Your task to perform on an android device: change the clock display to analog Image 0: 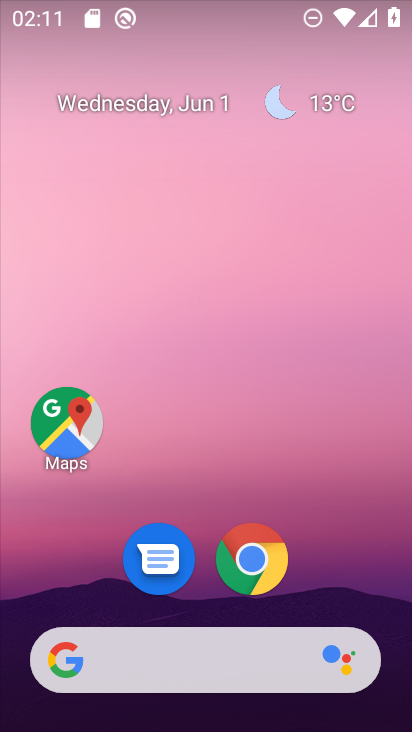
Step 0: drag from (386, 709) to (308, 7)
Your task to perform on an android device: change the clock display to analog Image 1: 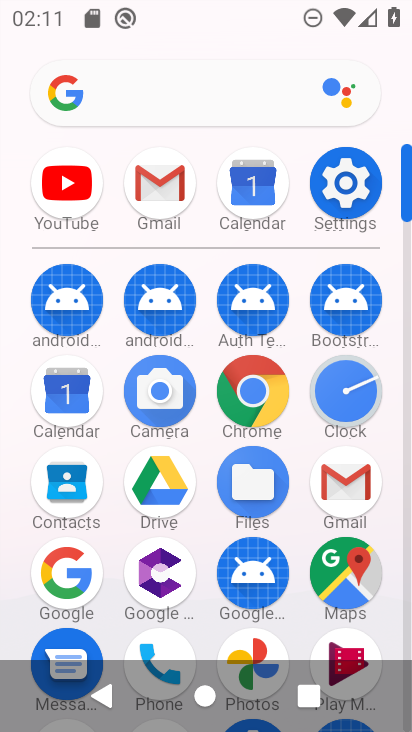
Step 1: click (341, 385)
Your task to perform on an android device: change the clock display to analog Image 2: 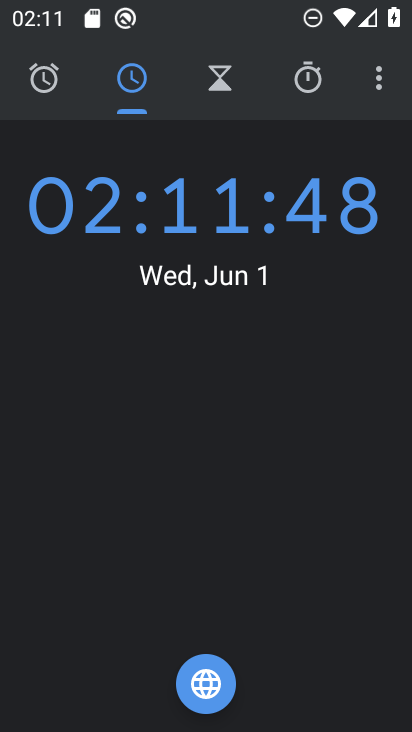
Step 2: click (377, 78)
Your task to perform on an android device: change the clock display to analog Image 3: 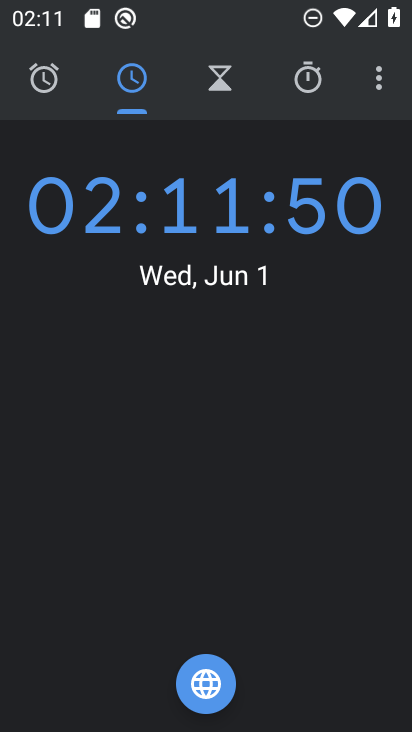
Step 3: click (386, 74)
Your task to perform on an android device: change the clock display to analog Image 4: 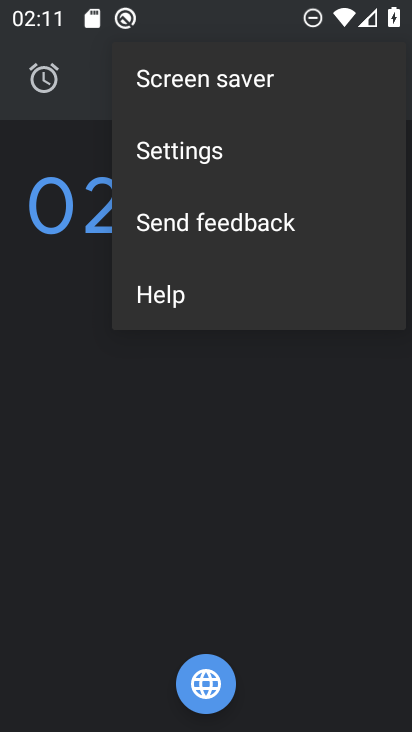
Step 4: click (190, 141)
Your task to perform on an android device: change the clock display to analog Image 5: 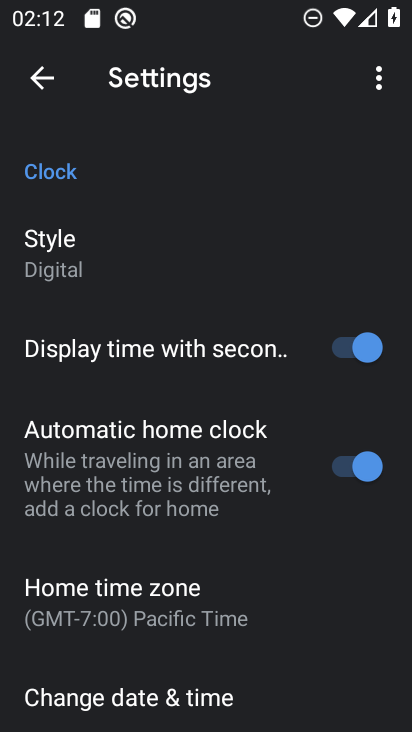
Step 5: click (55, 249)
Your task to perform on an android device: change the clock display to analog Image 6: 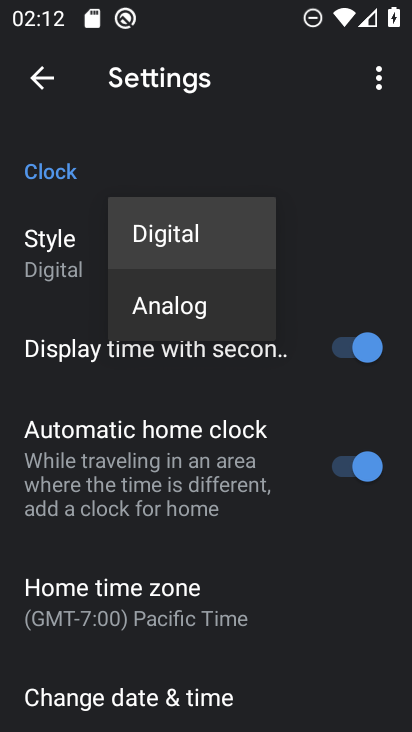
Step 6: click (189, 318)
Your task to perform on an android device: change the clock display to analog Image 7: 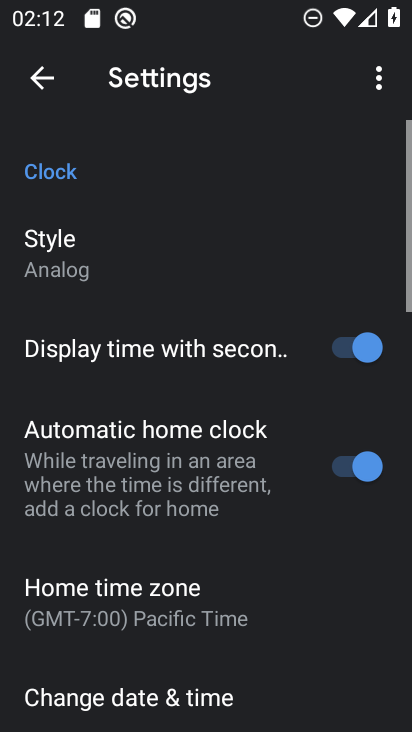
Step 7: task complete